Your task to perform on an android device: open chrome and create a bookmark for the current page Image 0: 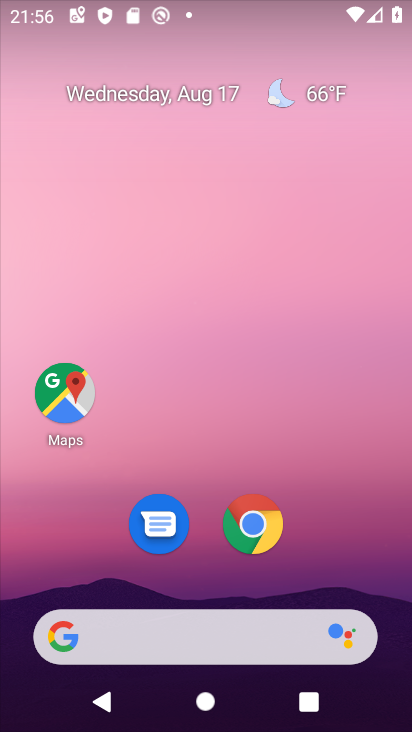
Step 0: click (256, 523)
Your task to perform on an android device: open chrome and create a bookmark for the current page Image 1: 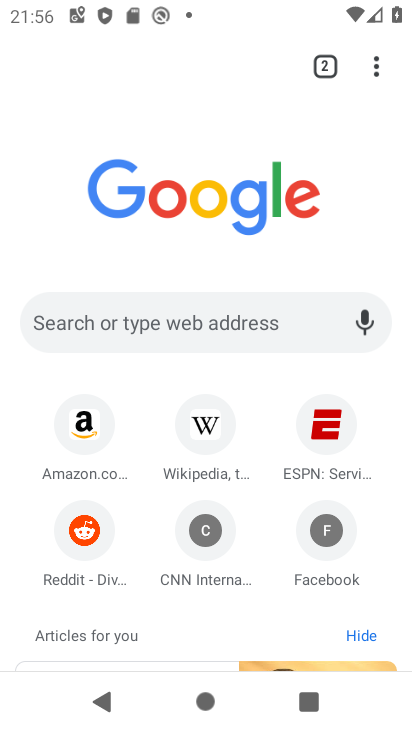
Step 1: click (380, 66)
Your task to perform on an android device: open chrome and create a bookmark for the current page Image 2: 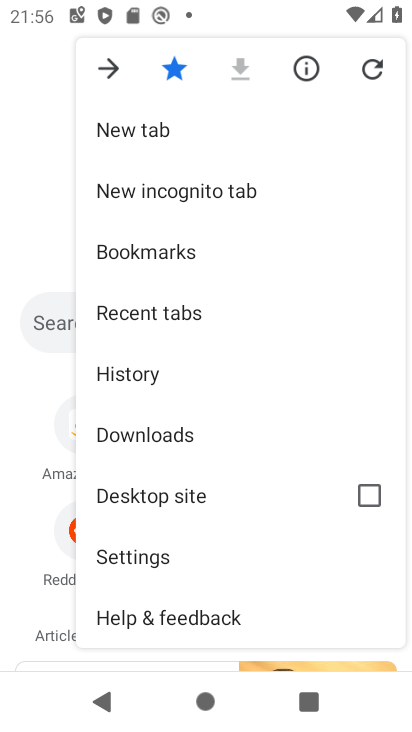
Step 2: task complete